Your task to perform on an android device: open app "Google Play Music" (install if not already installed) Image 0: 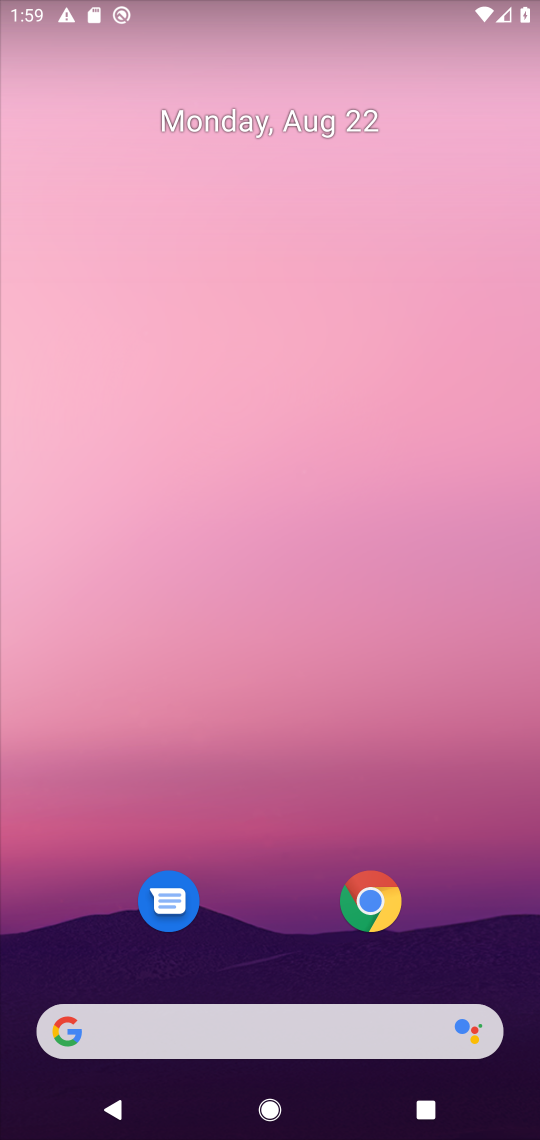
Step 0: drag from (477, 966) to (446, 340)
Your task to perform on an android device: open app "Google Play Music" (install if not already installed) Image 1: 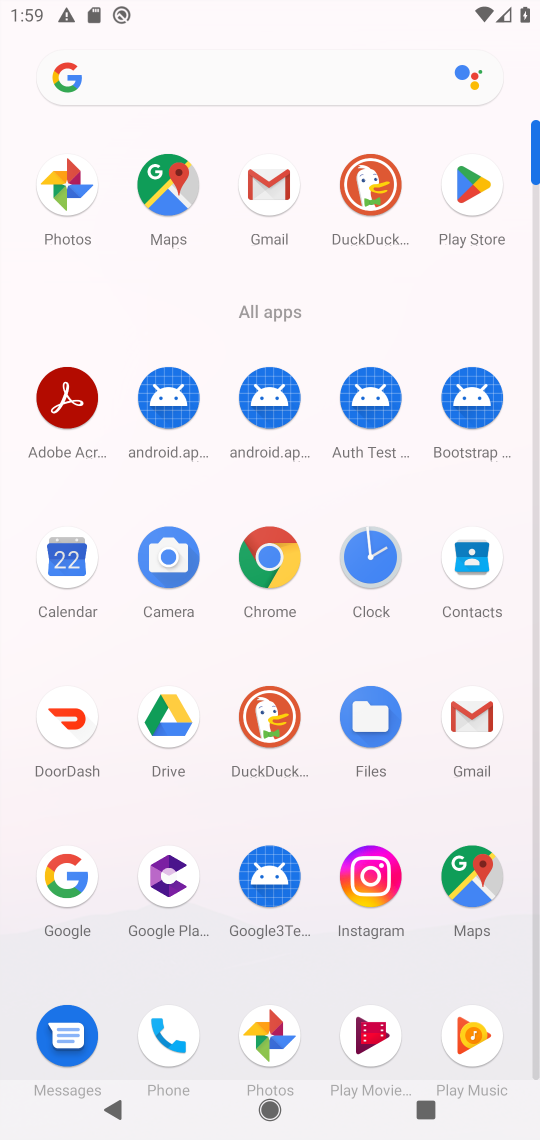
Step 1: drag from (317, 990) to (280, 580)
Your task to perform on an android device: open app "Google Play Music" (install if not already installed) Image 2: 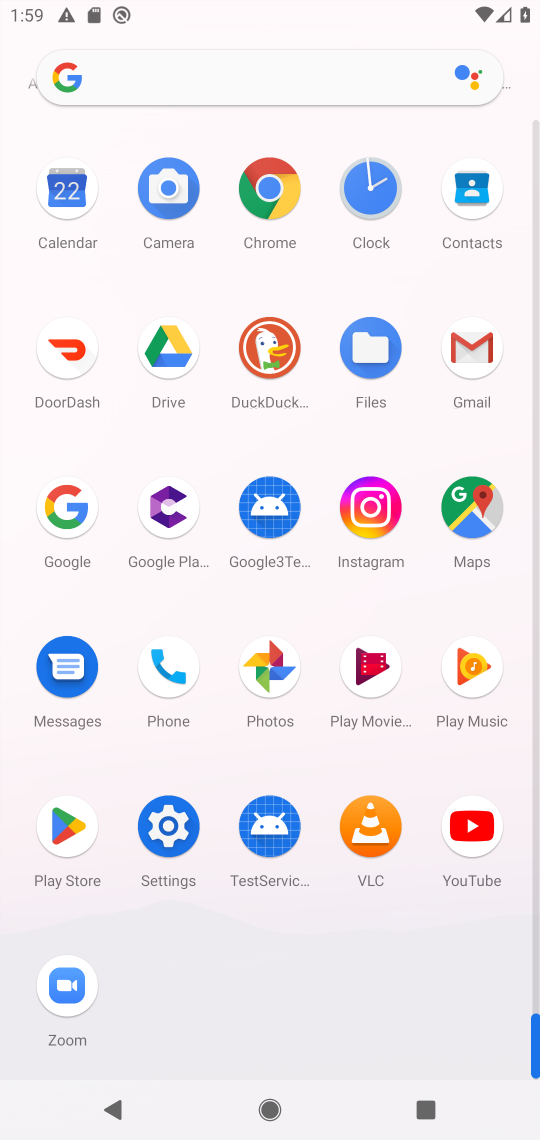
Step 2: click (68, 824)
Your task to perform on an android device: open app "Google Play Music" (install if not already installed) Image 3: 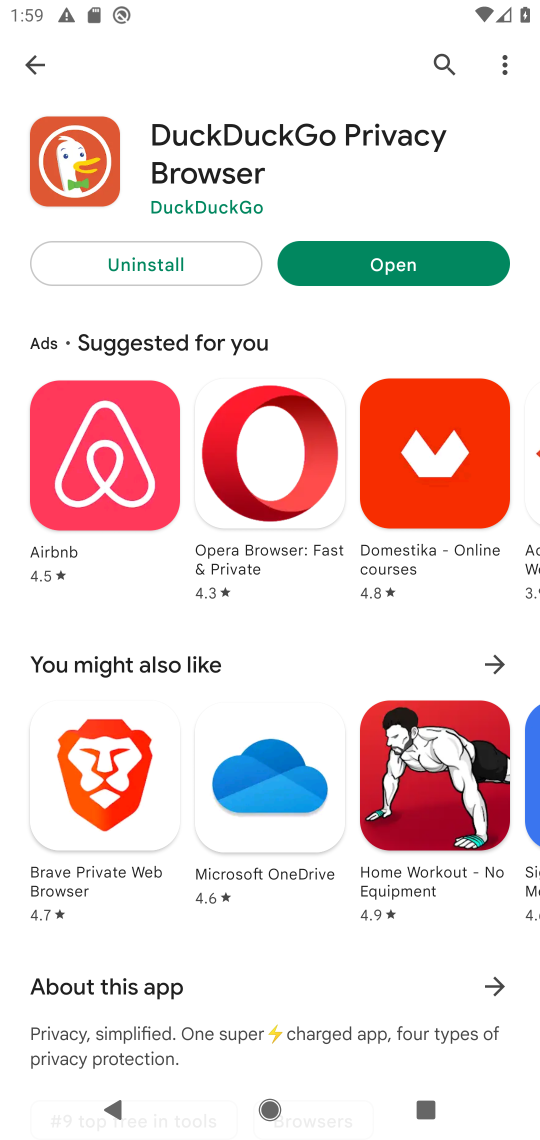
Step 3: click (437, 55)
Your task to perform on an android device: open app "Google Play Music" (install if not already installed) Image 4: 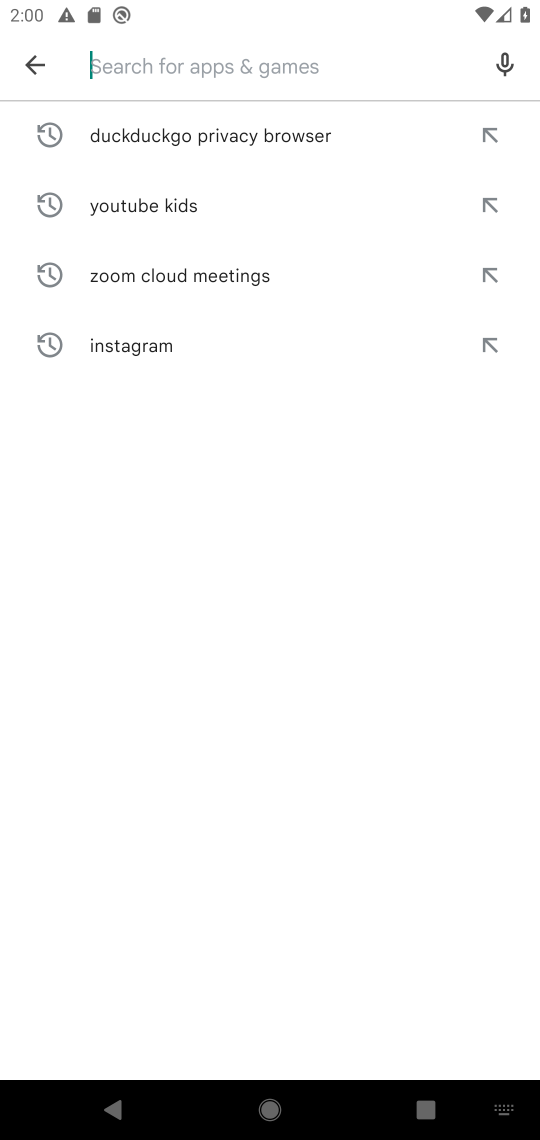
Step 4: type "Google Play Music"
Your task to perform on an android device: open app "Google Play Music" (install if not already installed) Image 5: 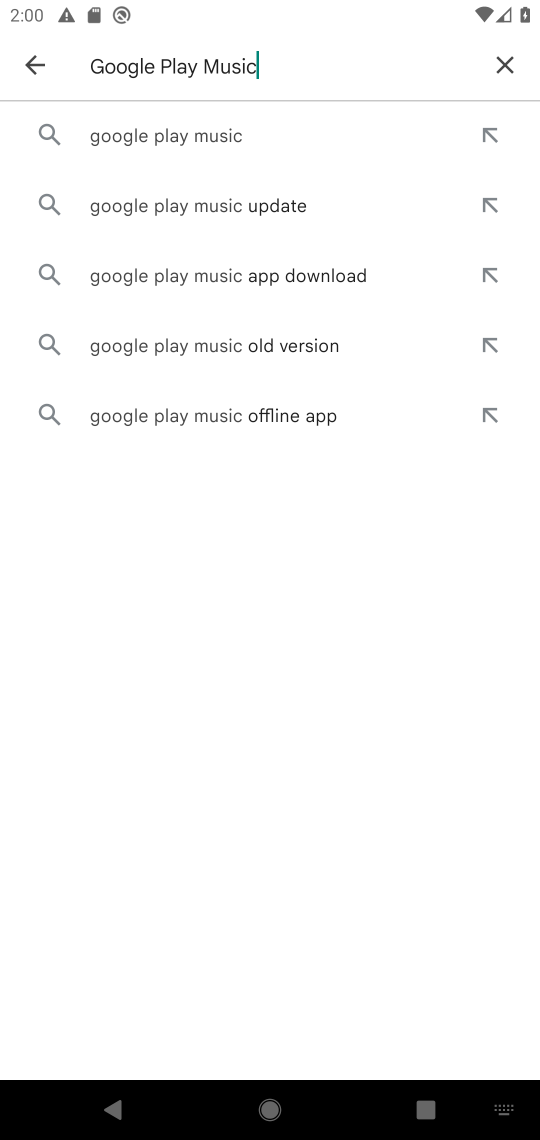
Step 5: click (154, 137)
Your task to perform on an android device: open app "Google Play Music" (install if not already installed) Image 6: 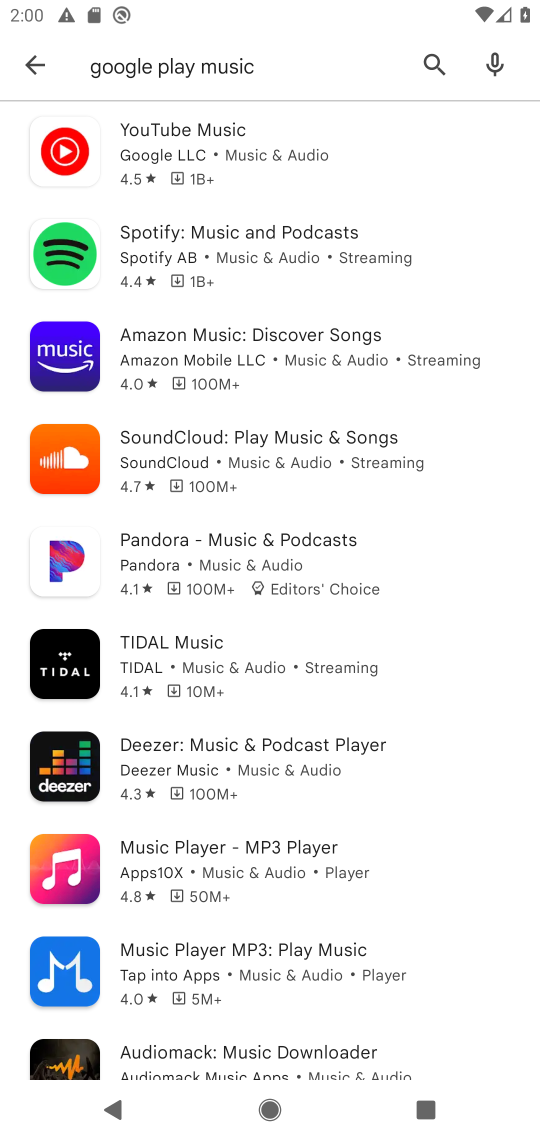
Step 6: drag from (266, 498) to (258, 285)
Your task to perform on an android device: open app "Google Play Music" (install if not already installed) Image 7: 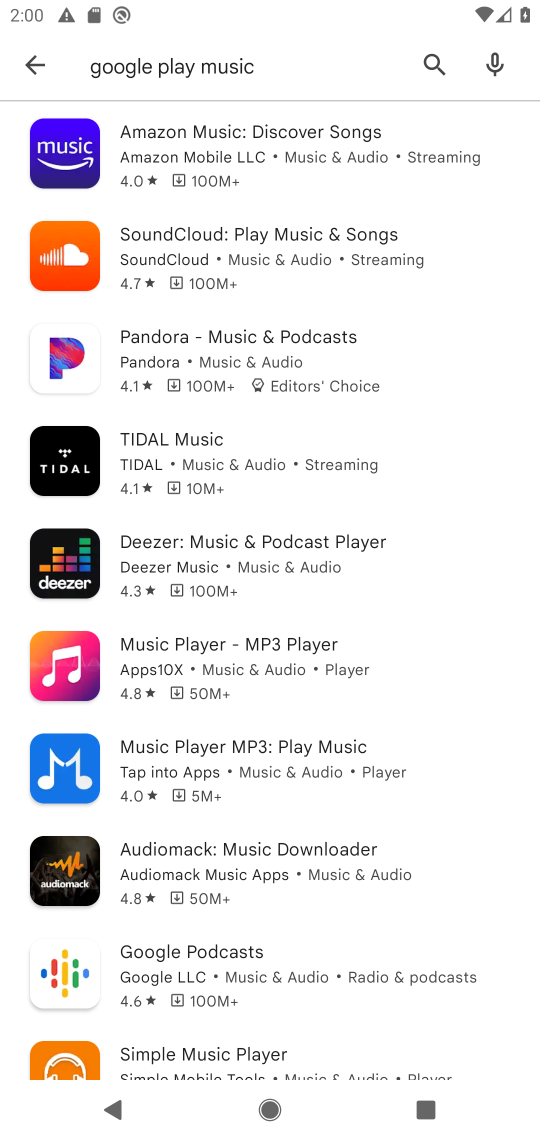
Step 7: drag from (282, 590) to (252, 323)
Your task to perform on an android device: open app "Google Play Music" (install if not already installed) Image 8: 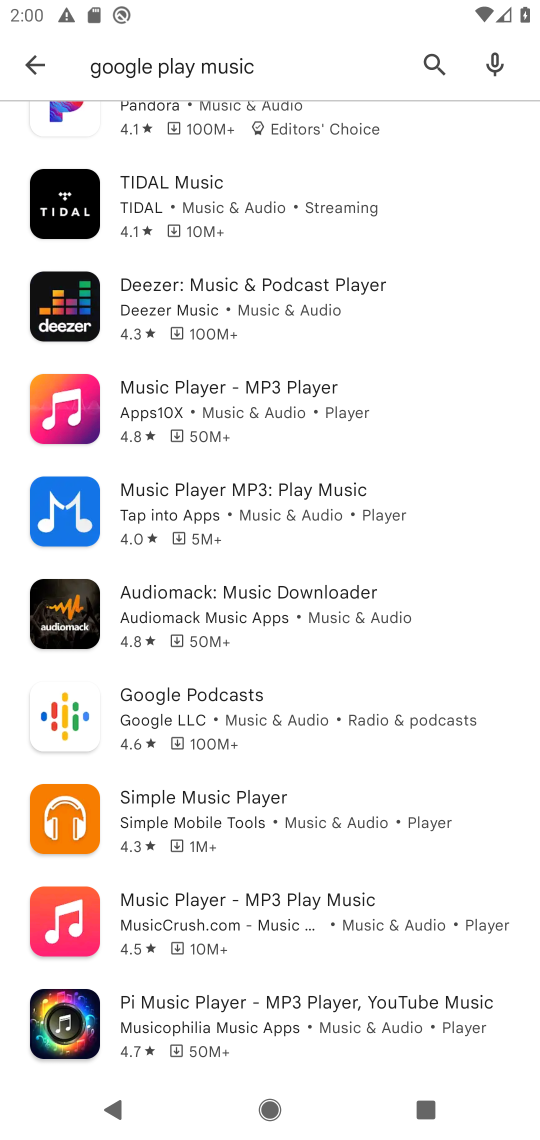
Step 8: drag from (266, 660) to (261, 317)
Your task to perform on an android device: open app "Google Play Music" (install if not already installed) Image 9: 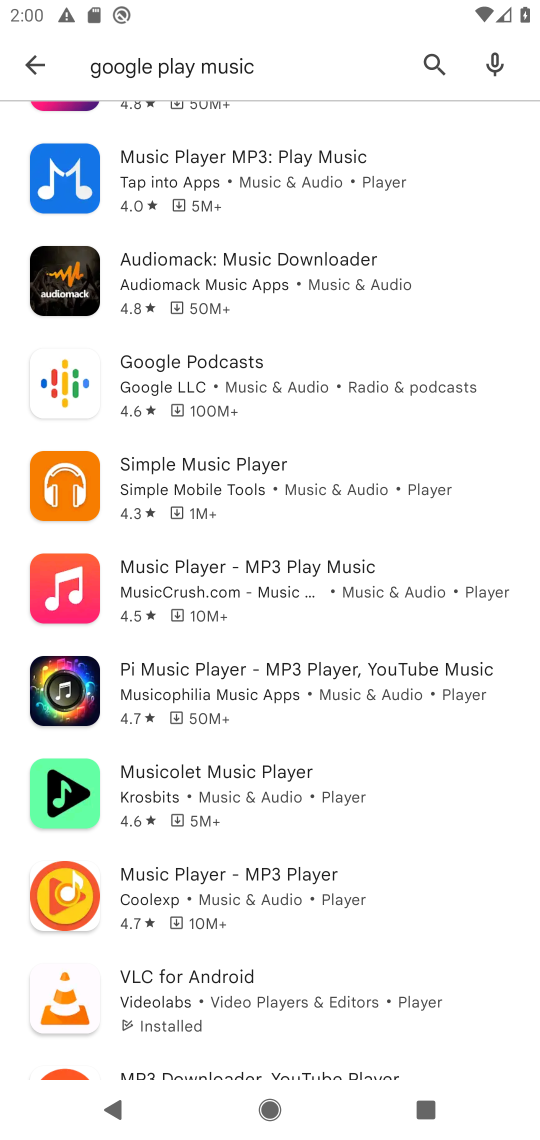
Step 9: drag from (268, 628) to (269, 296)
Your task to perform on an android device: open app "Google Play Music" (install if not already installed) Image 10: 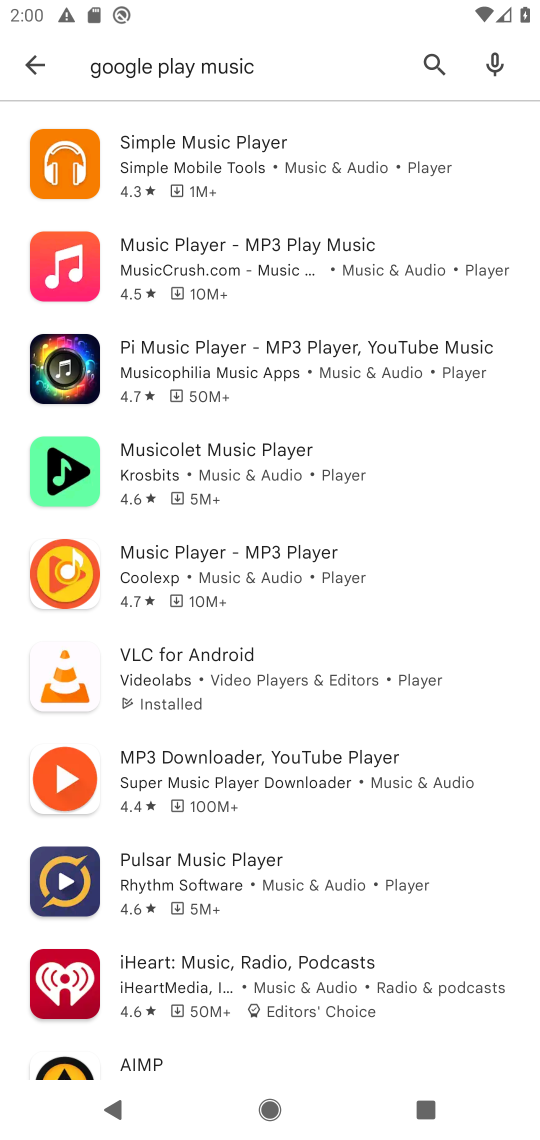
Step 10: drag from (319, 905) to (285, 582)
Your task to perform on an android device: open app "Google Play Music" (install if not already installed) Image 11: 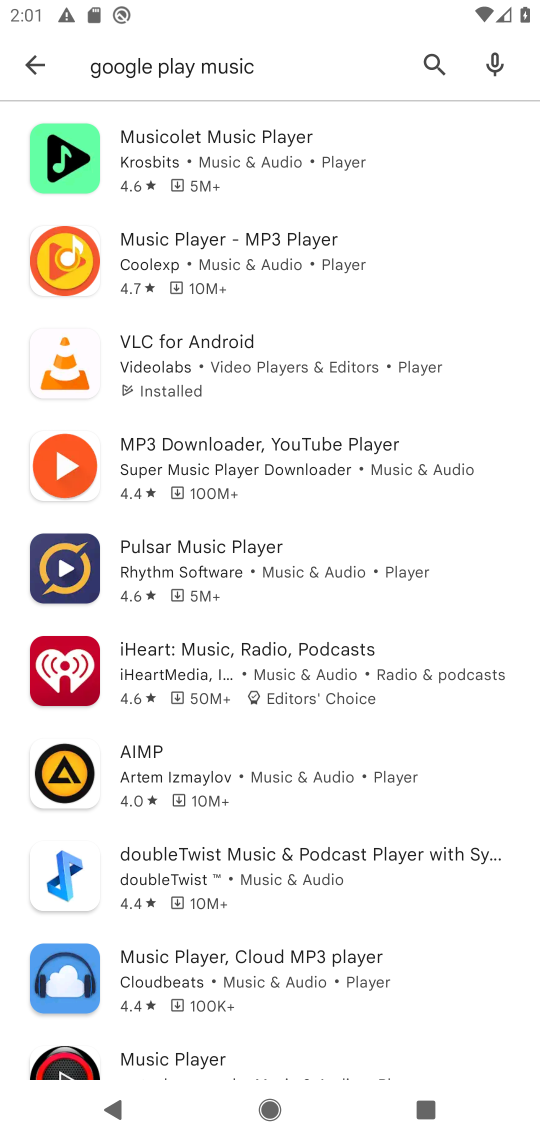
Step 11: drag from (149, 949) to (163, 596)
Your task to perform on an android device: open app "Google Play Music" (install if not already installed) Image 12: 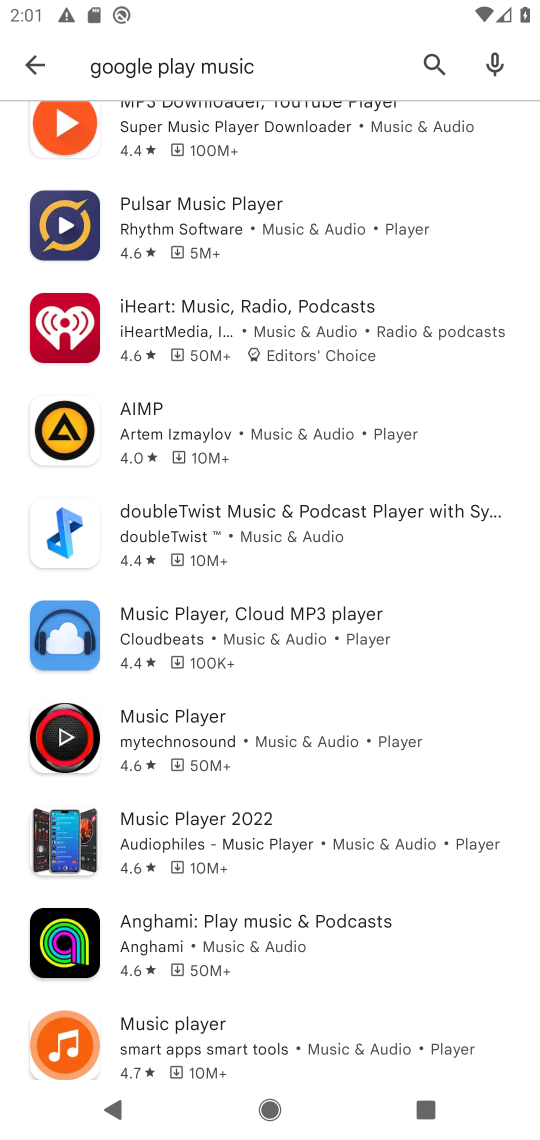
Step 12: drag from (229, 1032) to (223, 494)
Your task to perform on an android device: open app "Google Play Music" (install if not already installed) Image 13: 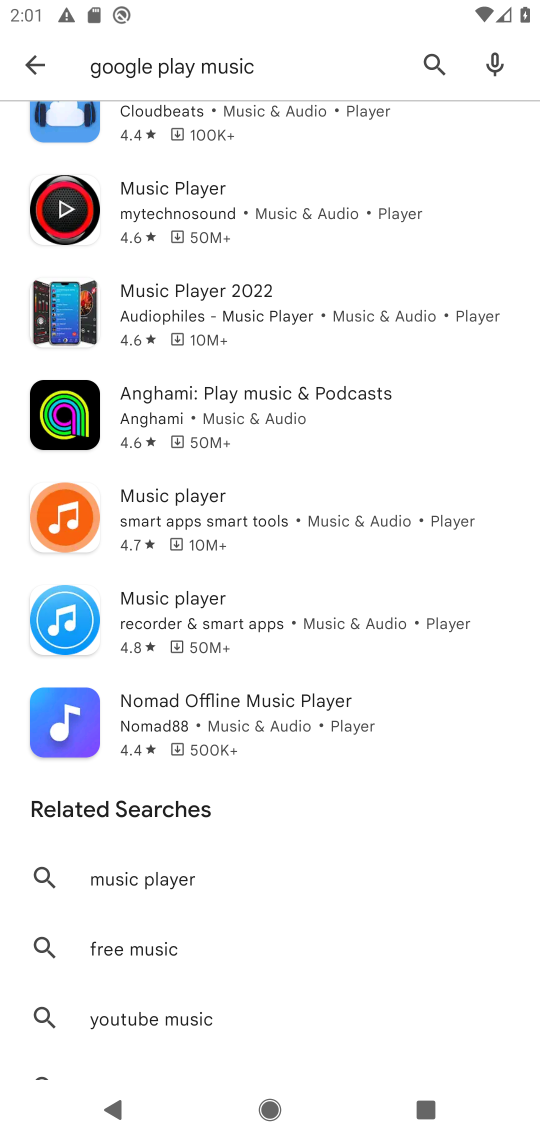
Step 13: drag from (203, 192) to (201, 513)
Your task to perform on an android device: open app "Google Play Music" (install if not already installed) Image 14: 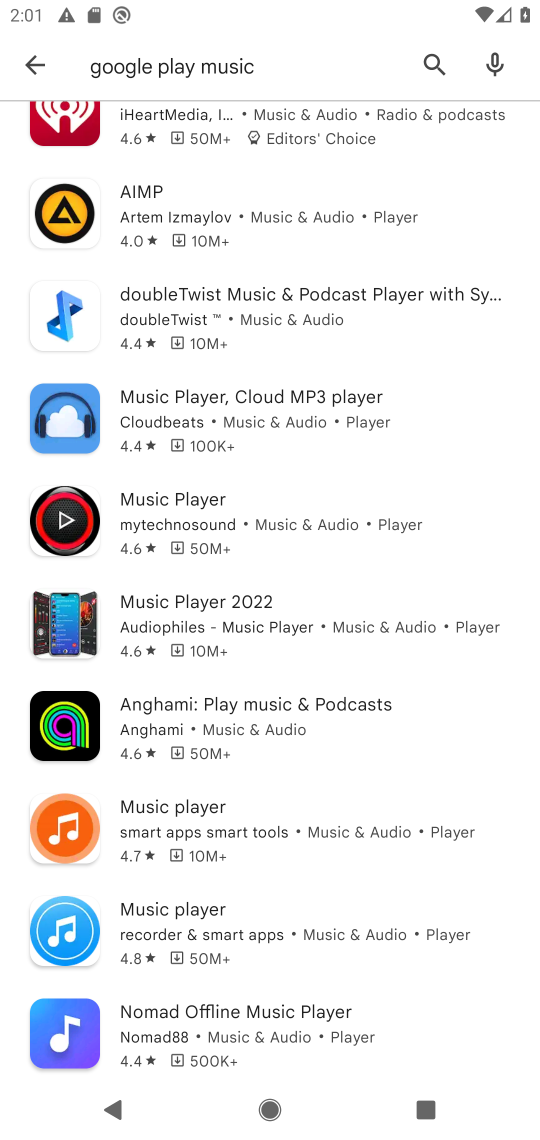
Step 14: drag from (240, 261) to (195, 593)
Your task to perform on an android device: open app "Google Play Music" (install if not already installed) Image 15: 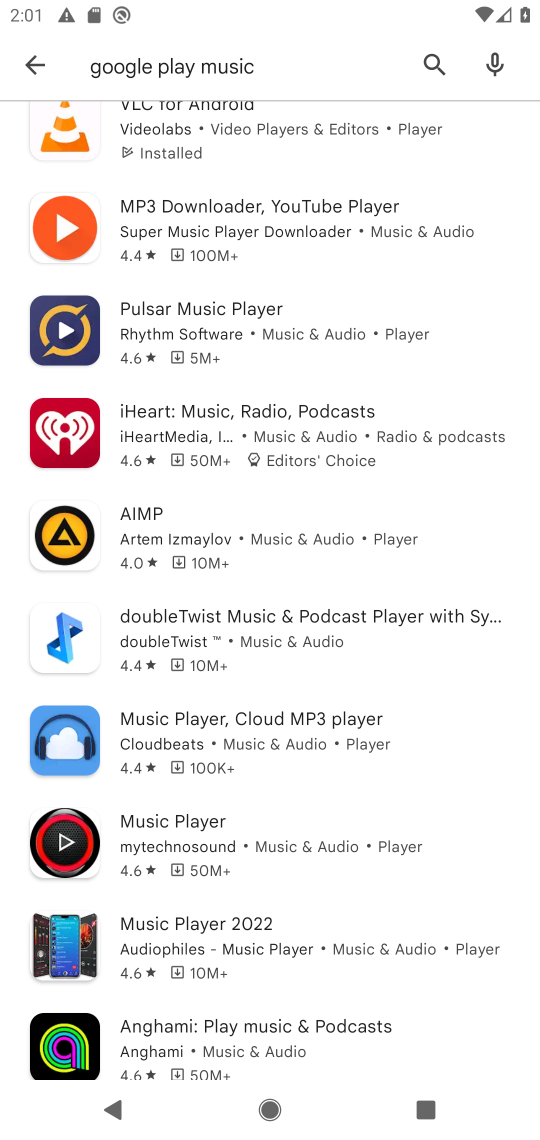
Step 15: drag from (207, 252) to (151, 625)
Your task to perform on an android device: open app "Google Play Music" (install if not already installed) Image 16: 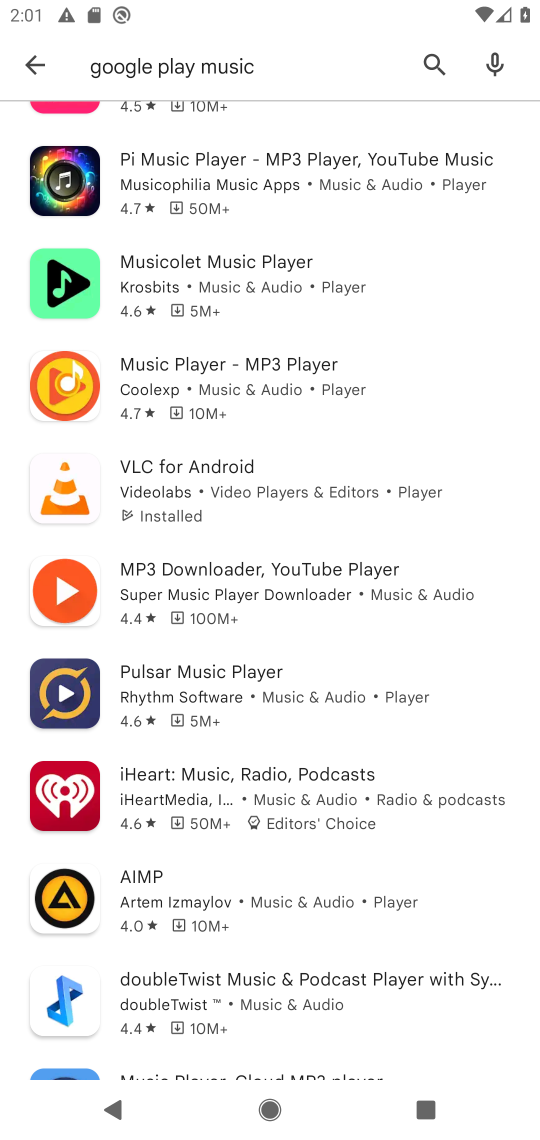
Step 16: drag from (270, 277) to (237, 735)
Your task to perform on an android device: open app "Google Play Music" (install if not already installed) Image 17: 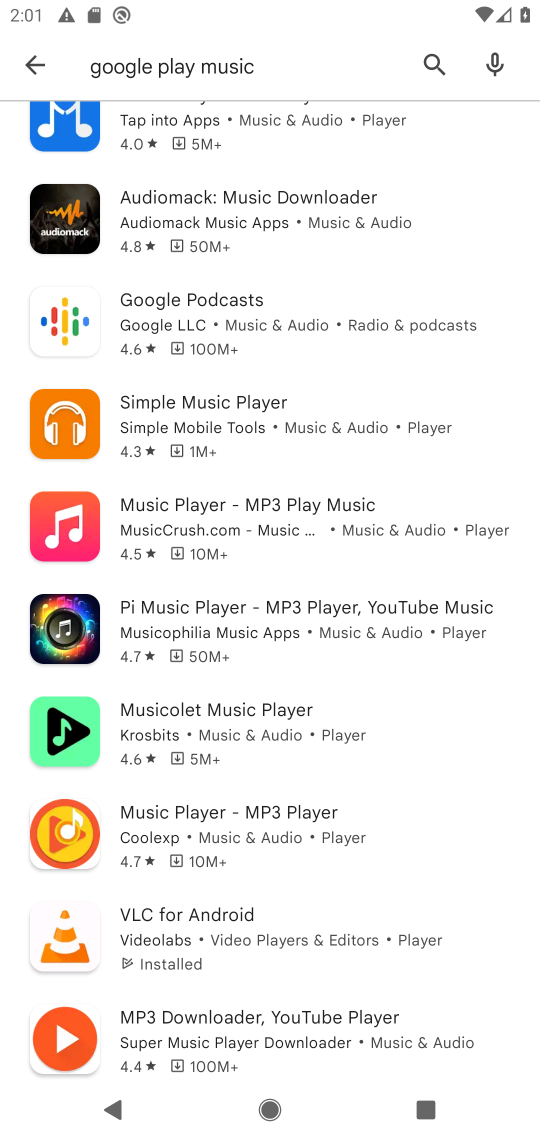
Step 17: drag from (298, 288) to (246, 725)
Your task to perform on an android device: open app "Google Play Music" (install if not already installed) Image 18: 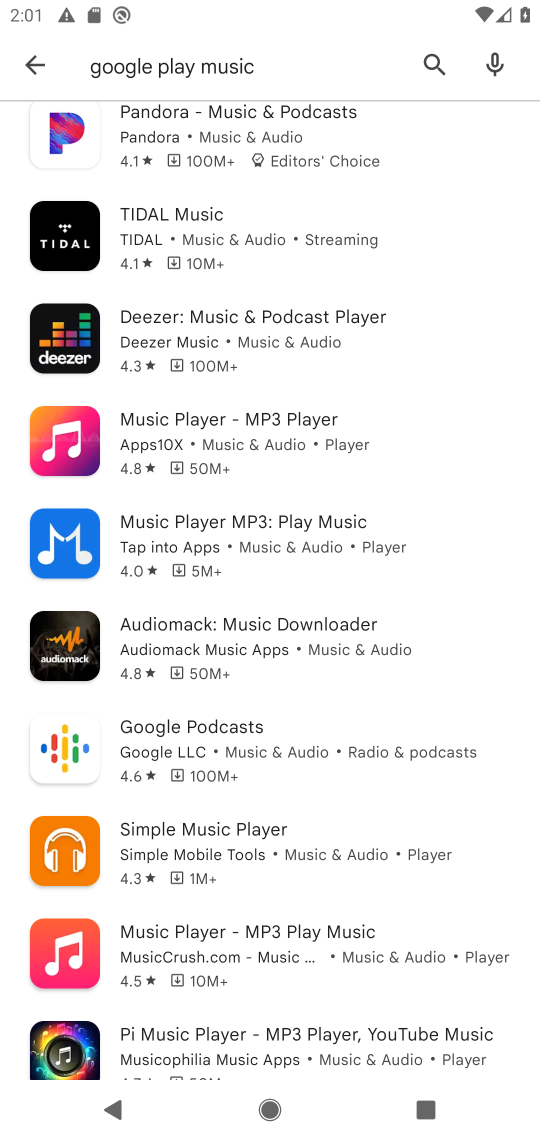
Step 18: drag from (285, 402) to (263, 791)
Your task to perform on an android device: open app "Google Play Music" (install if not already installed) Image 19: 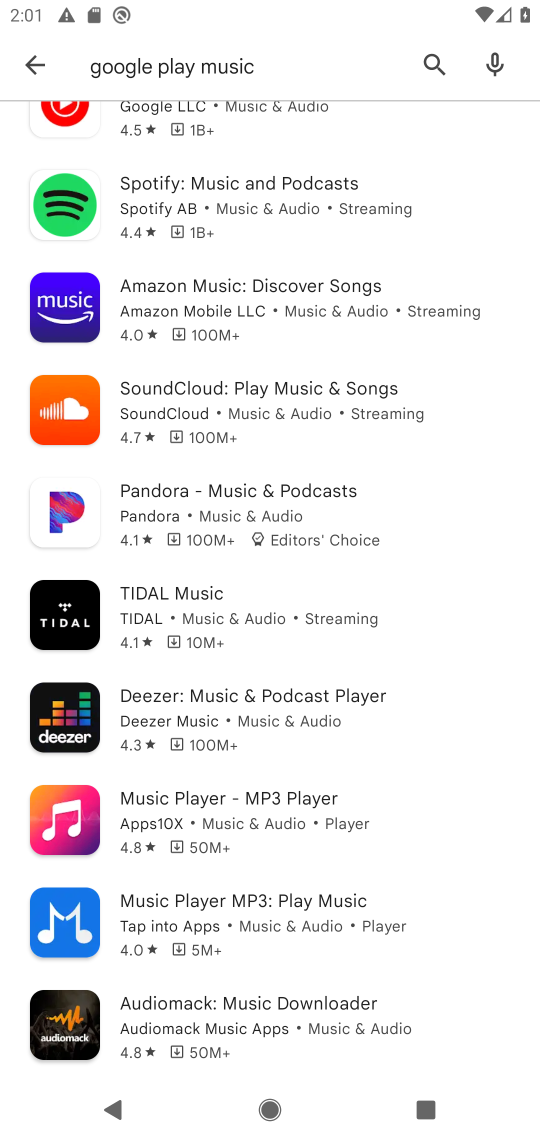
Step 19: drag from (283, 130) to (219, 668)
Your task to perform on an android device: open app "Google Play Music" (install if not already installed) Image 20: 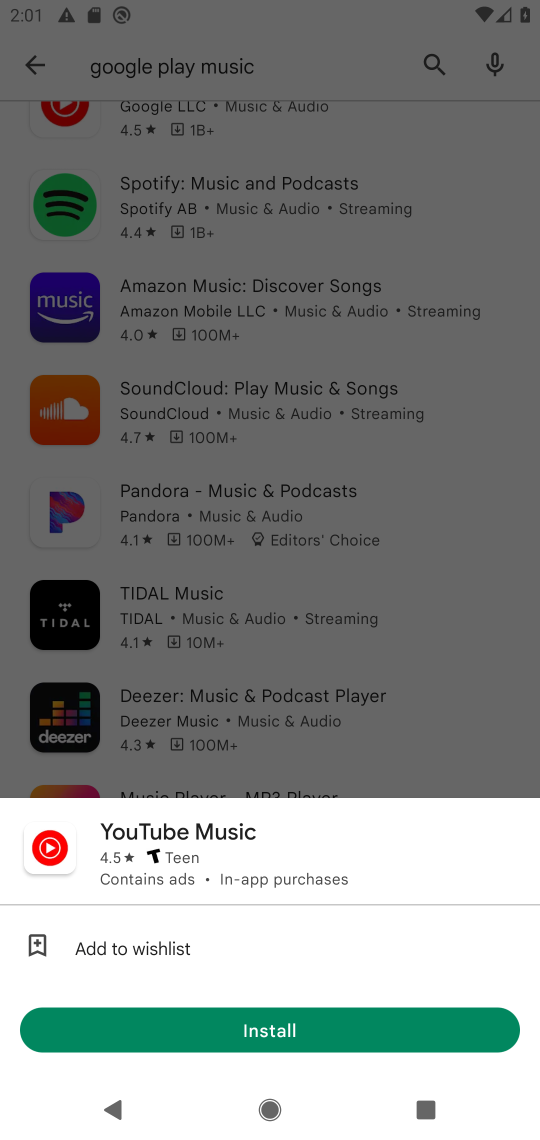
Step 20: click (307, 438)
Your task to perform on an android device: open app "Google Play Music" (install if not already installed) Image 21: 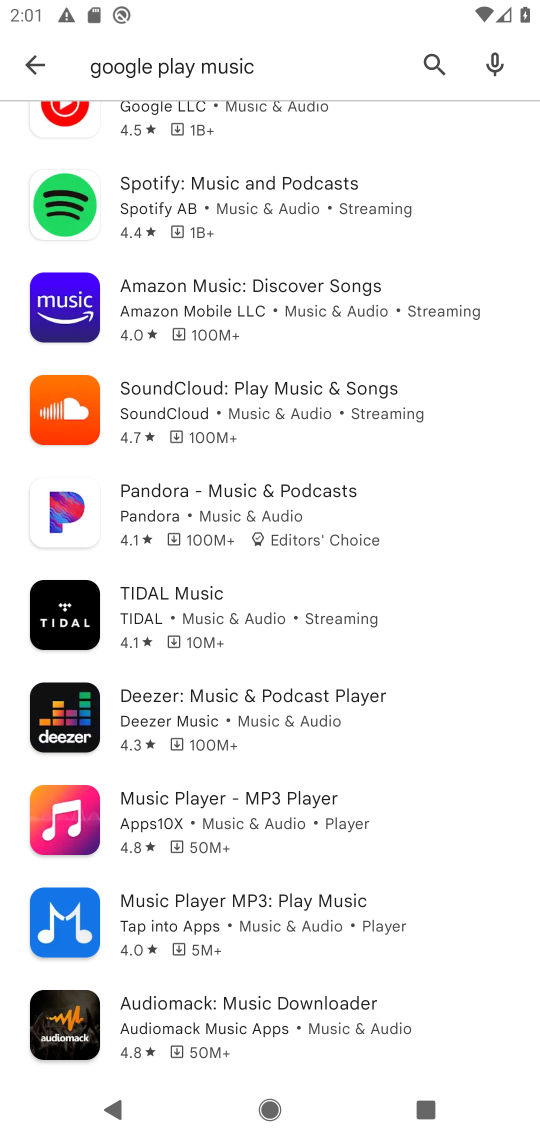
Step 21: task complete